Your task to perform on an android device: turn on data saver in the chrome app Image 0: 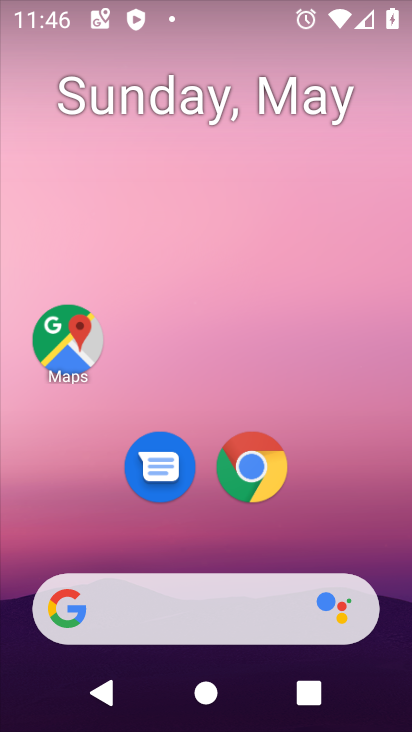
Step 0: click (257, 469)
Your task to perform on an android device: turn on data saver in the chrome app Image 1: 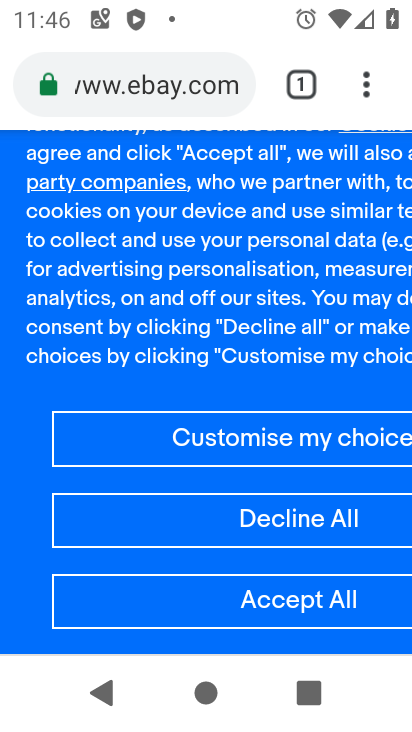
Step 1: click (369, 86)
Your task to perform on an android device: turn on data saver in the chrome app Image 2: 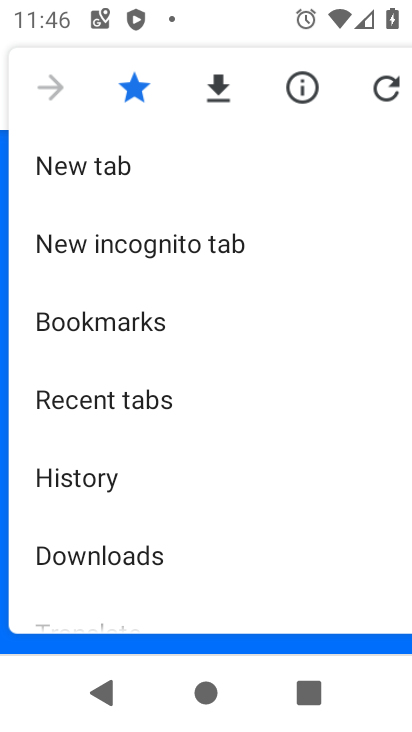
Step 2: drag from (221, 511) to (191, 158)
Your task to perform on an android device: turn on data saver in the chrome app Image 3: 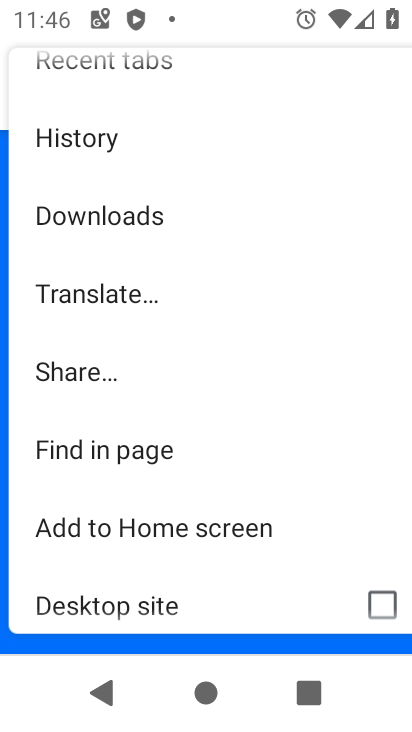
Step 3: drag from (191, 493) to (174, 197)
Your task to perform on an android device: turn on data saver in the chrome app Image 4: 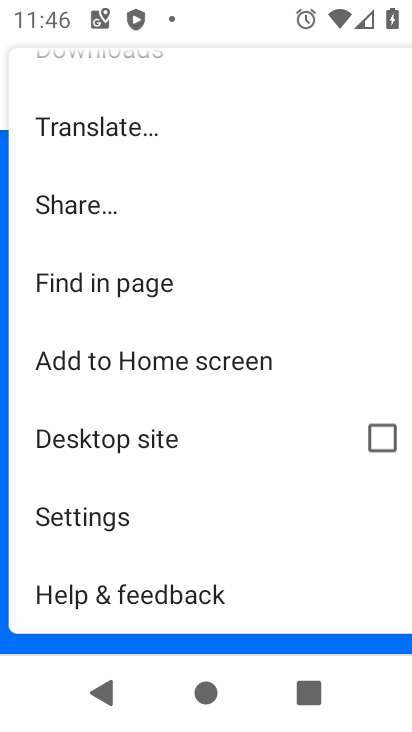
Step 4: click (78, 518)
Your task to perform on an android device: turn on data saver in the chrome app Image 5: 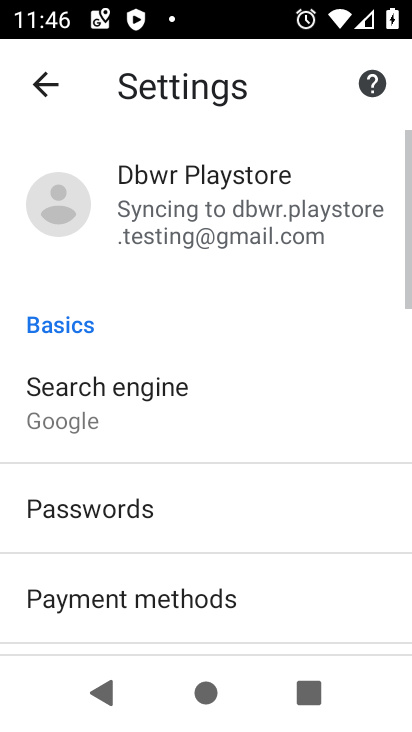
Step 5: drag from (247, 500) to (246, 150)
Your task to perform on an android device: turn on data saver in the chrome app Image 6: 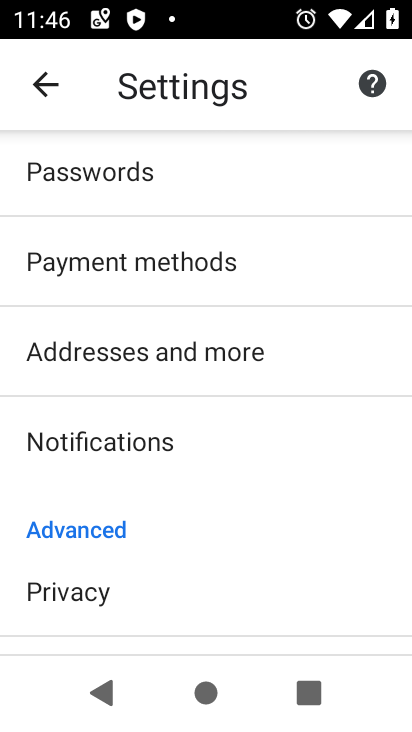
Step 6: drag from (255, 504) to (234, 125)
Your task to perform on an android device: turn on data saver in the chrome app Image 7: 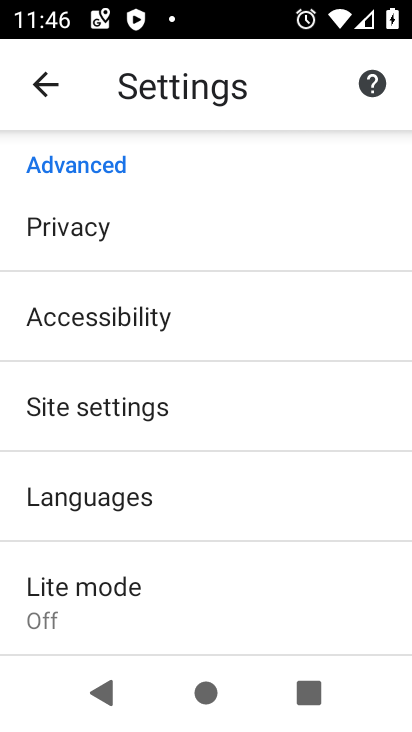
Step 7: click (79, 594)
Your task to perform on an android device: turn on data saver in the chrome app Image 8: 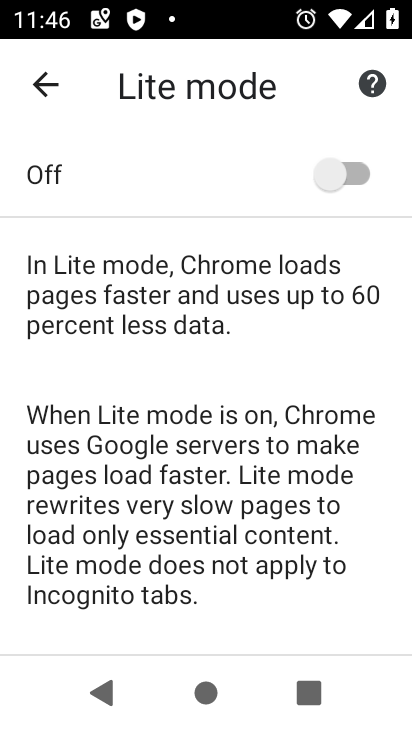
Step 8: click (320, 172)
Your task to perform on an android device: turn on data saver in the chrome app Image 9: 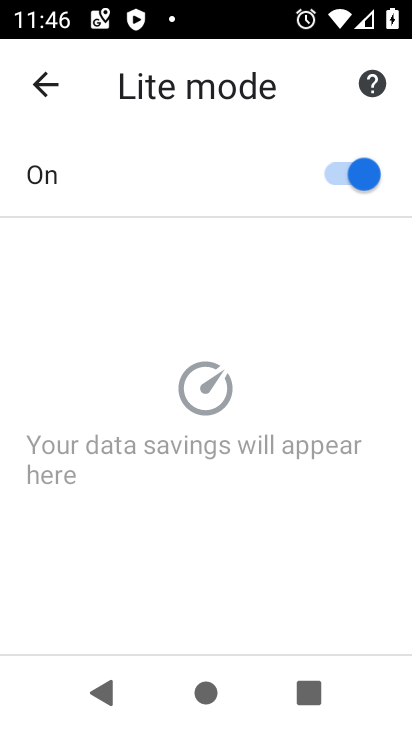
Step 9: task complete